Your task to perform on an android device: remove spam from my inbox in the gmail app Image 0: 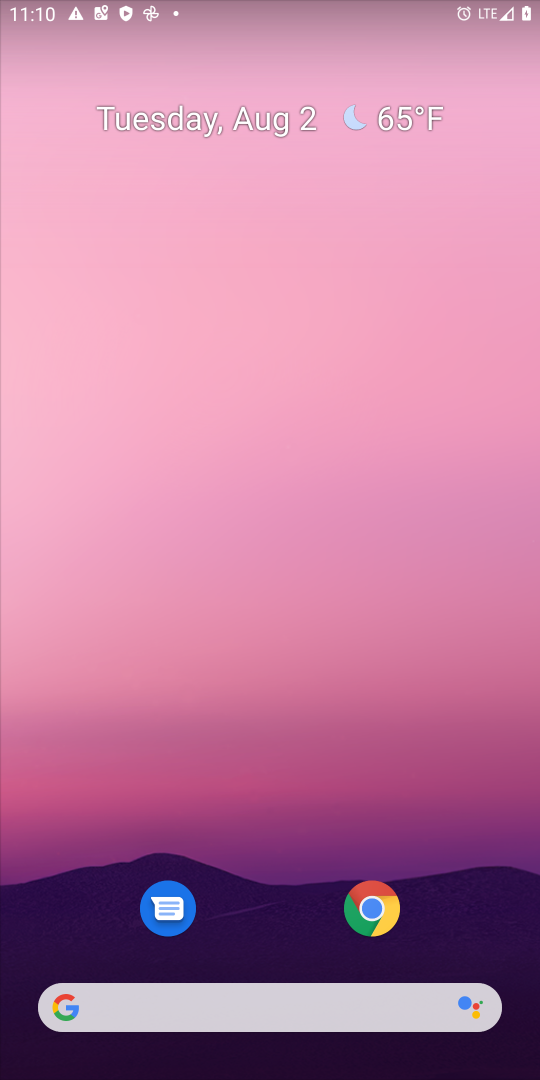
Step 0: drag from (251, 852) to (361, 7)
Your task to perform on an android device: remove spam from my inbox in the gmail app Image 1: 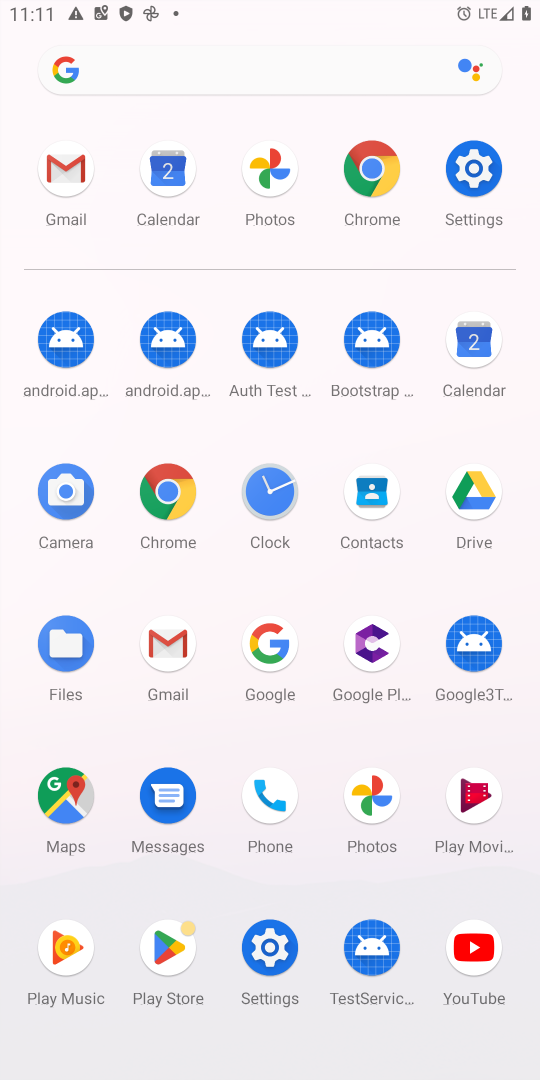
Step 1: click (166, 661)
Your task to perform on an android device: remove spam from my inbox in the gmail app Image 2: 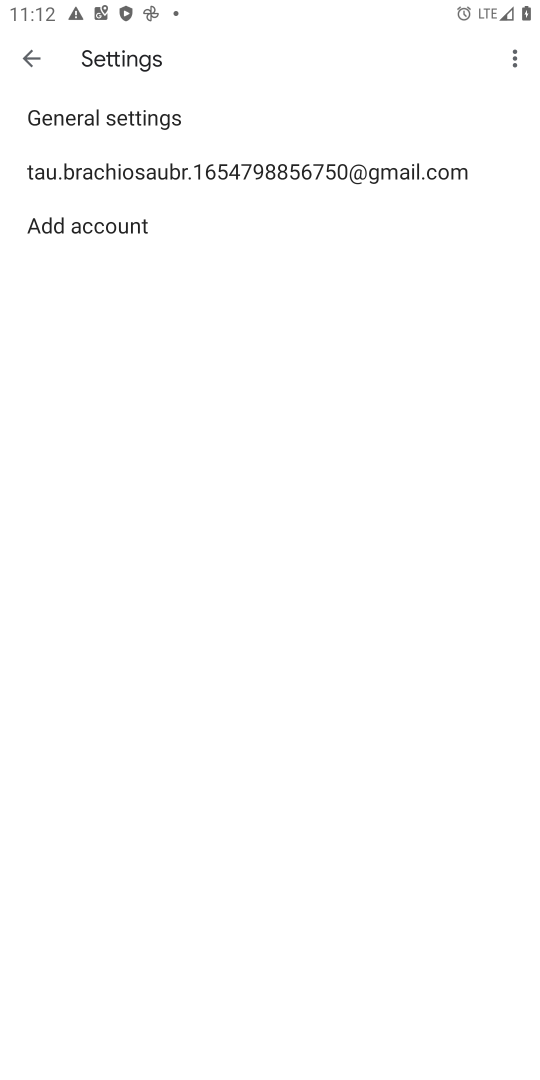
Step 2: press back button
Your task to perform on an android device: remove spam from my inbox in the gmail app Image 3: 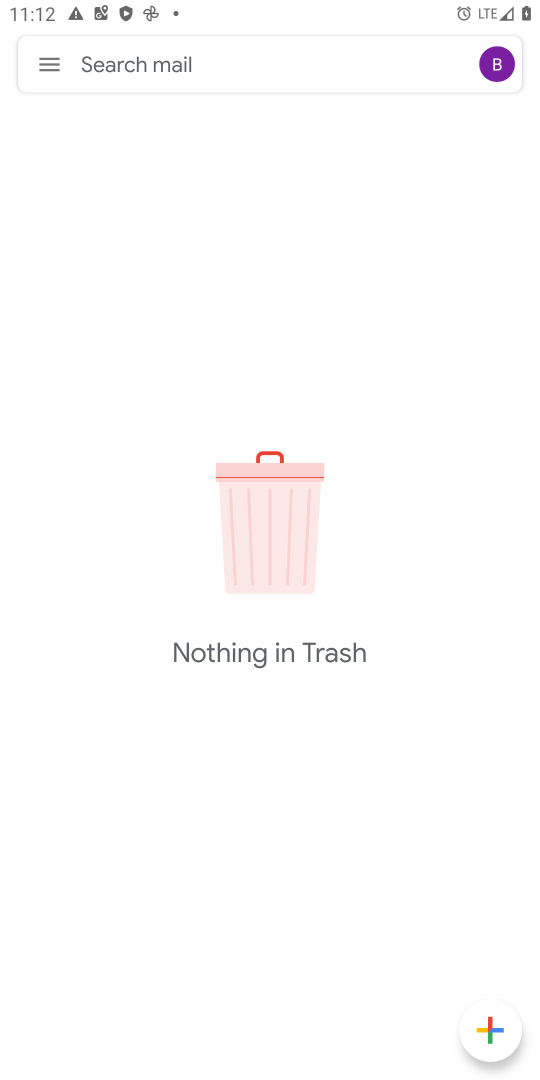
Step 3: click (62, 74)
Your task to perform on an android device: remove spam from my inbox in the gmail app Image 4: 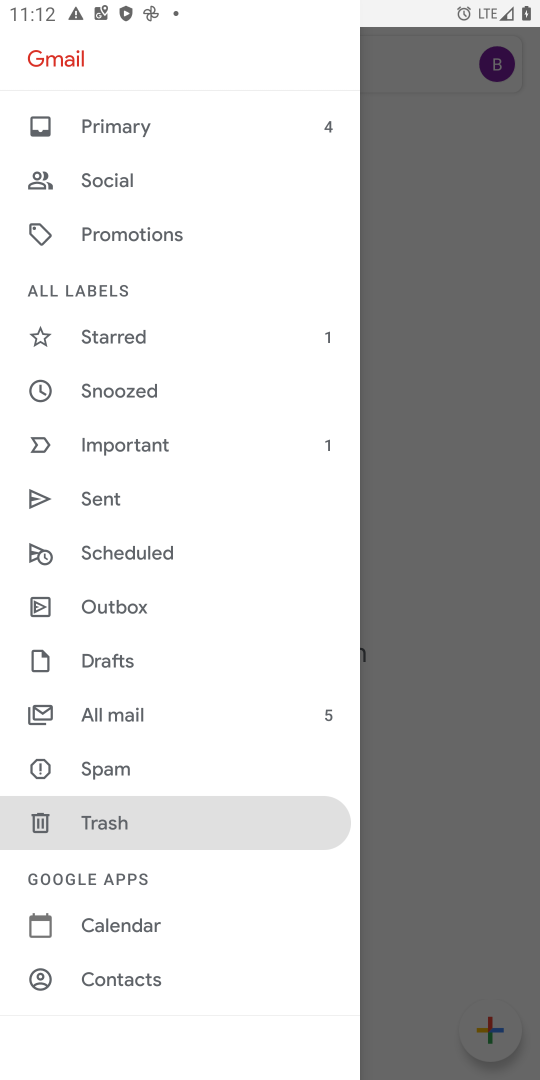
Step 4: click (115, 752)
Your task to perform on an android device: remove spam from my inbox in the gmail app Image 5: 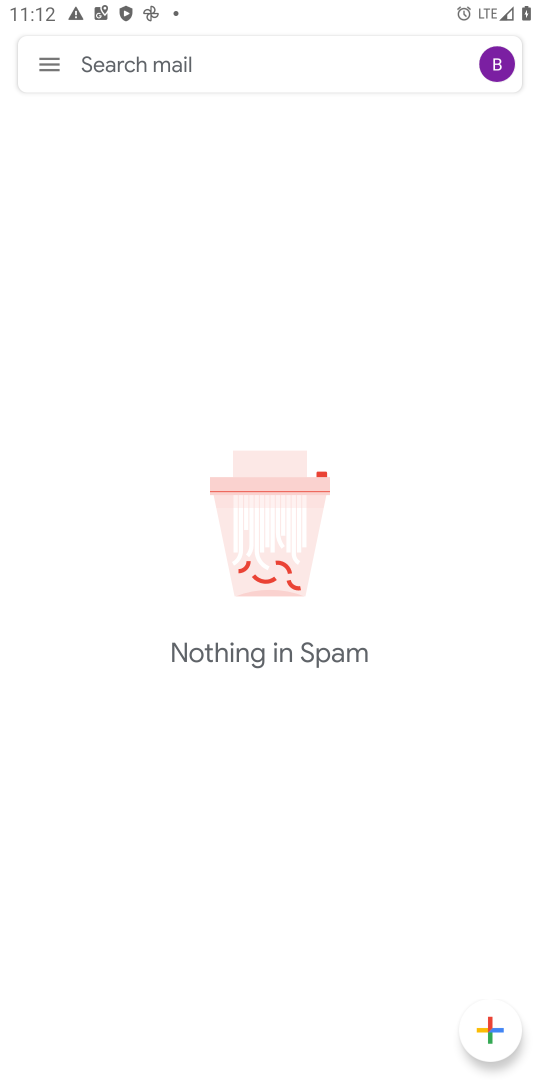
Step 5: task complete